Your task to perform on an android device: Open ESPN.com Image 0: 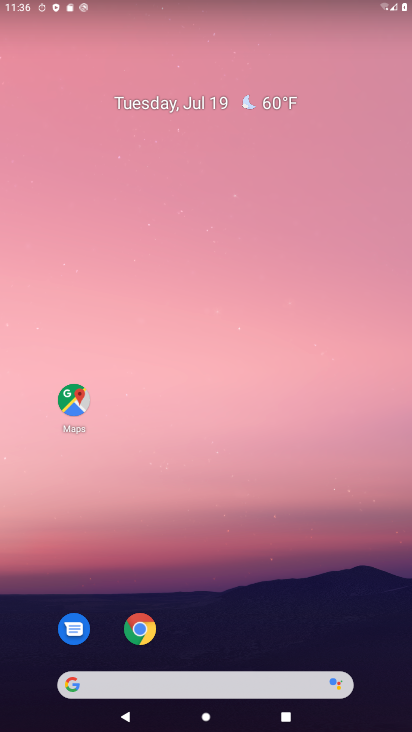
Step 0: click (137, 624)
Your task to perform on an android device: Open ESPN.com Image 1: 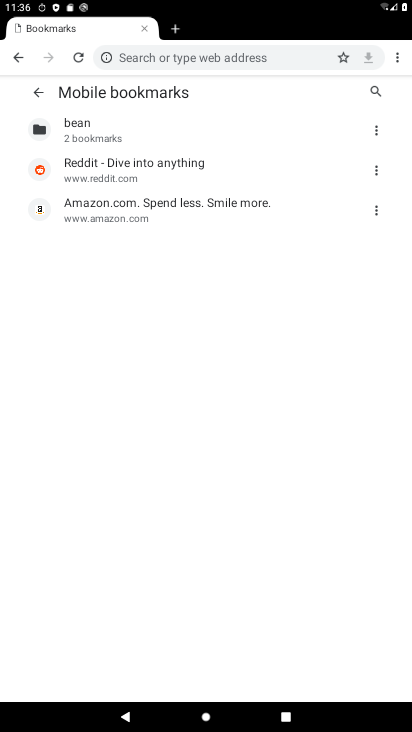
Step 1: click (206, 62)
Your task to perform on an android device: Open ESPN.com Image 2: 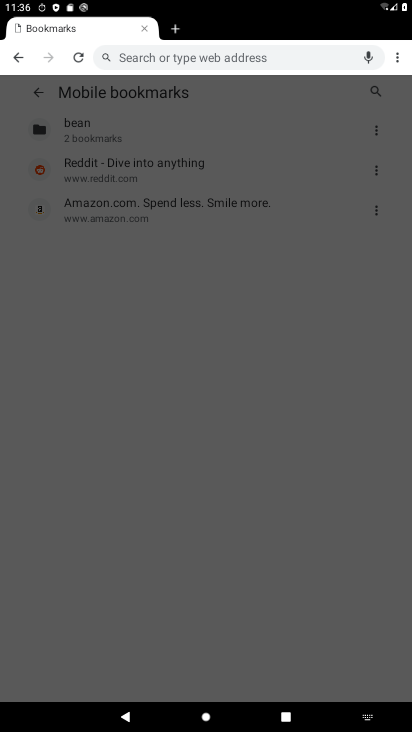
Step 2: type "ESPN.com"
Your task to perform on an android device: Open ESPN.com Image 3: 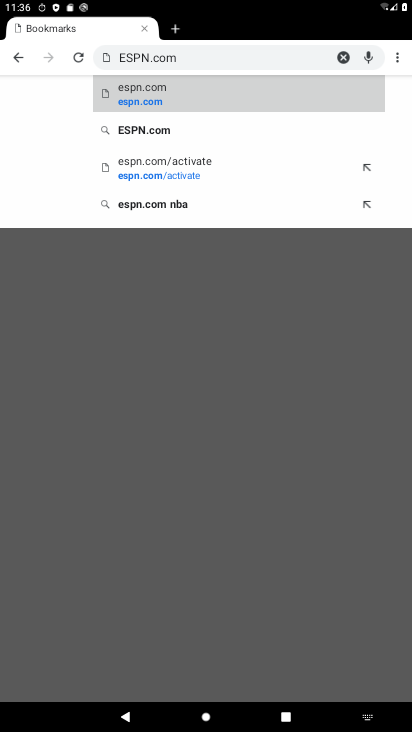
Step 3: click (284, 95)
Your task to perform on an android device: Open ESPN.com Image 4: 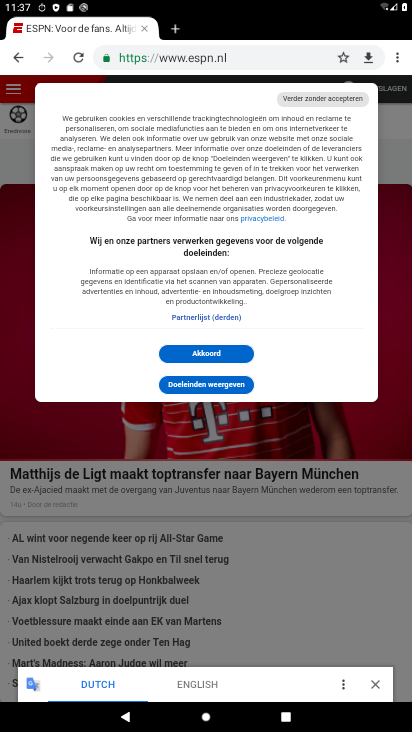
Step 4: task complete